Your task to perform on an android device: Find coffee shops on Maps Image 0: 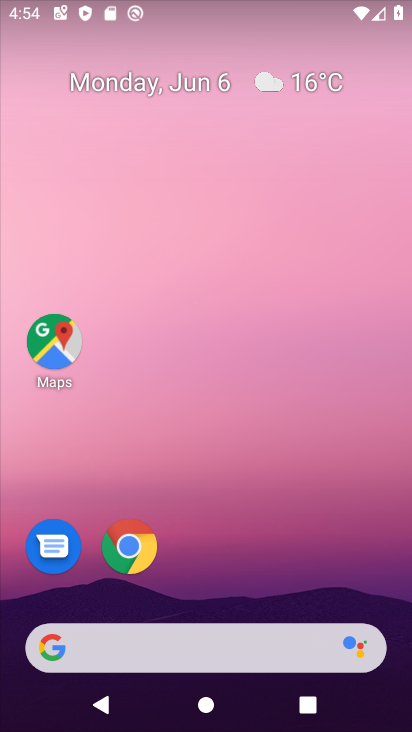
Step 0: click (51, 353)
Your task to perform on an android device: Find coffee shops on Maps Image 1: 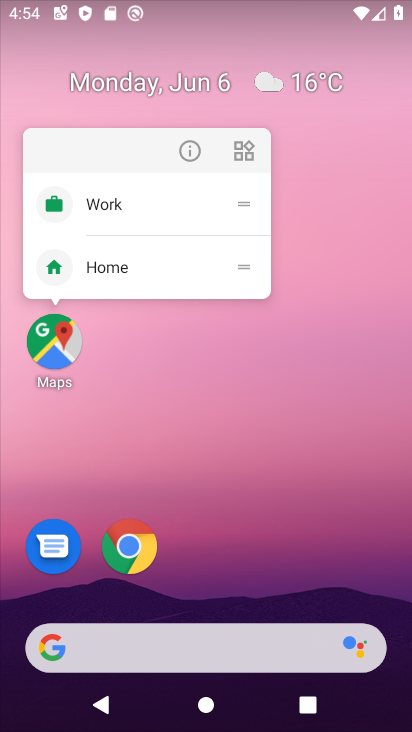
Step 1: click (51, 353)
Your task to perform on an android device: Find coffee shops on Maps Image 2: 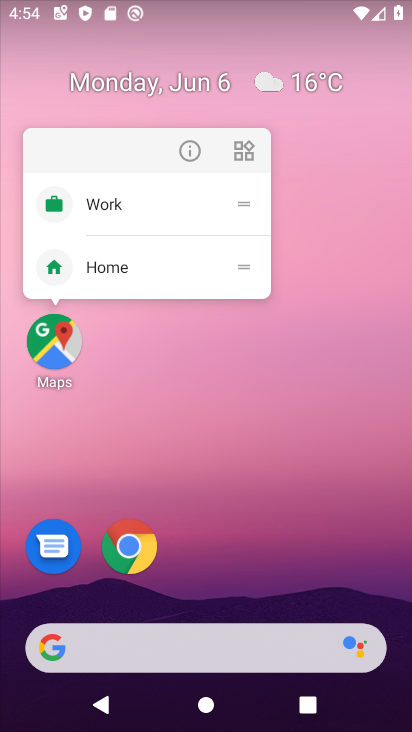
Step 2: click (51, 353)
Your task to perform on an android device: Find coffee shops on Maps Image 3: 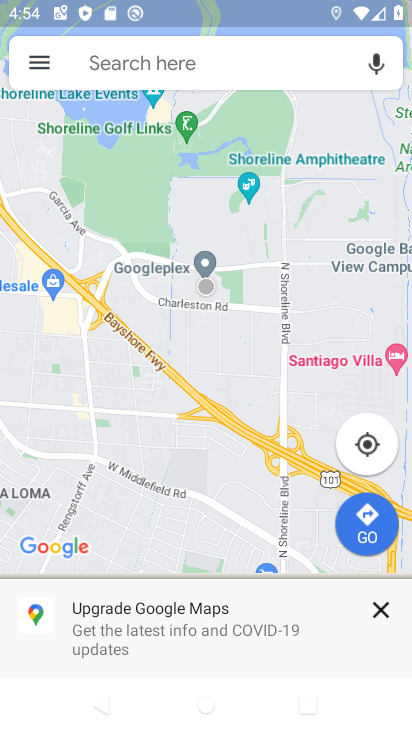
Step 3: click (164, 75)
Your task to perform on an android device: Find coffee shops on Maps Image 4: 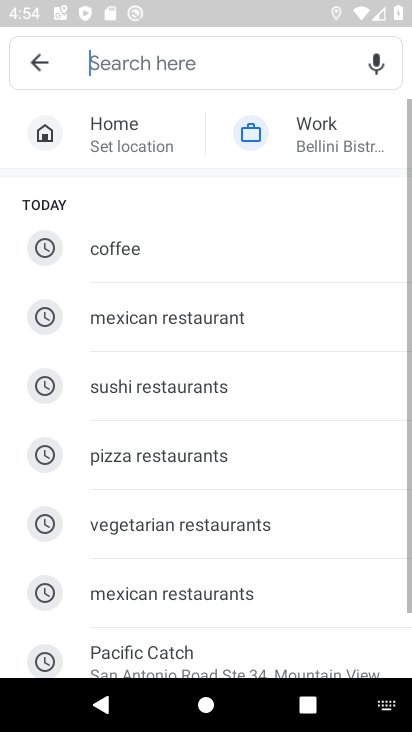
Step 4: click (114, 260)
Your task to perform on an android device: Find coffee shops on Maps Image 5: 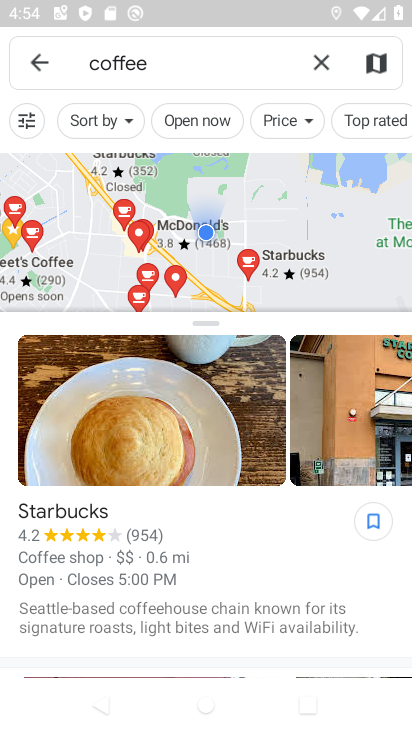
Step 5: task complete